Your task to perform on an android device: Open Google Maps Image 0: 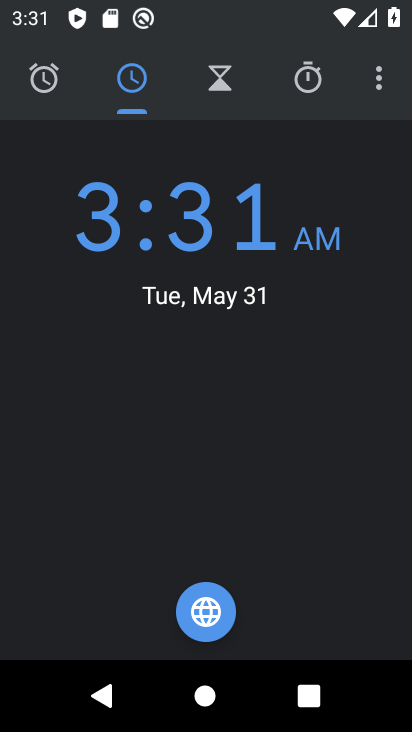
Step 0: press home button
Your task to perform on an android device: Open Google Maps Image 1: 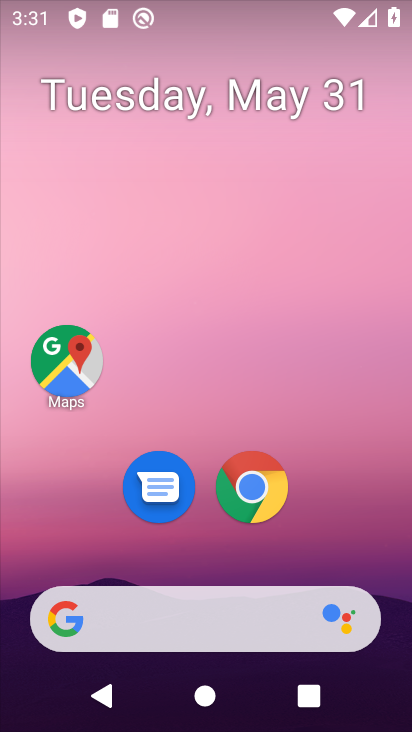
Step 1: click (82, 336)
Your task to perform on an android device: Open Google Maps Image 2: 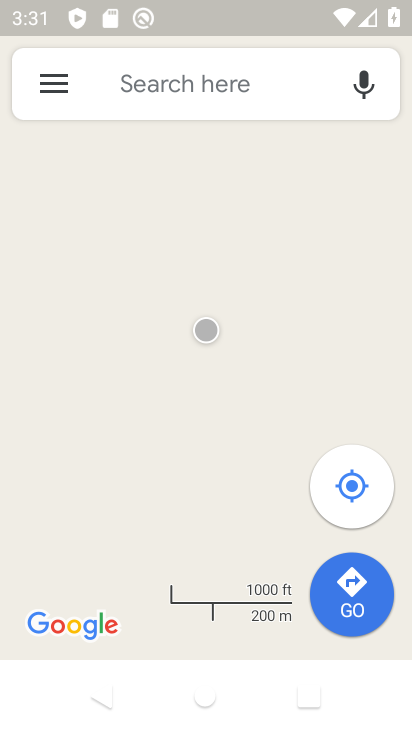
Step 2: task complete